Your task to perform on an android device: Search for Italian restaurants on Maps Image 0: 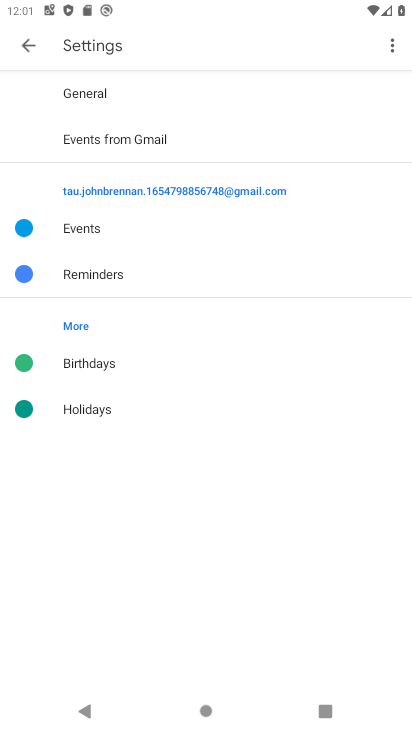
Step 0: press home button
Your task to perform on an android device: Search for Italian restaurants on Maps Image 1: 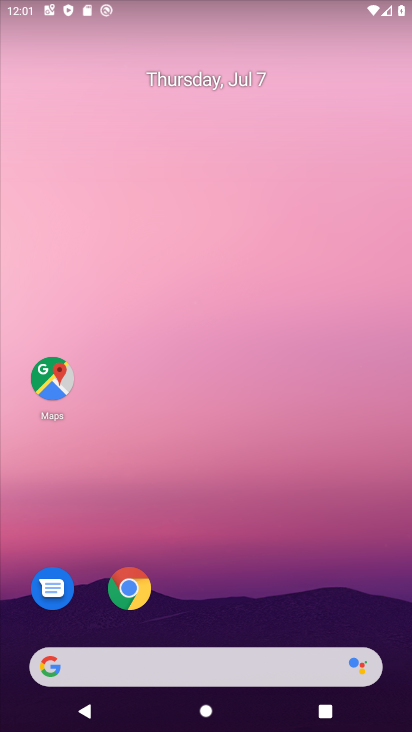
Step 1: drag from (227, 727) to (205, 80)
Your task to perform on an android device: Search for Italian restaurants on Maps Image 2: 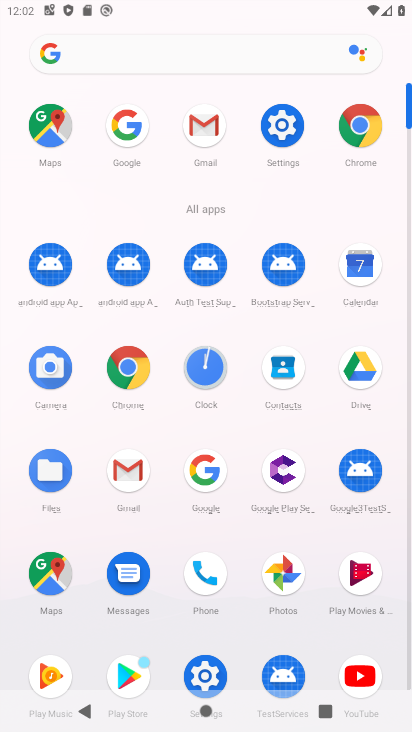
Step 2: click (51, 574)
Your task to perform on an android device: Search for Italian restaurants on Maps Image 3: 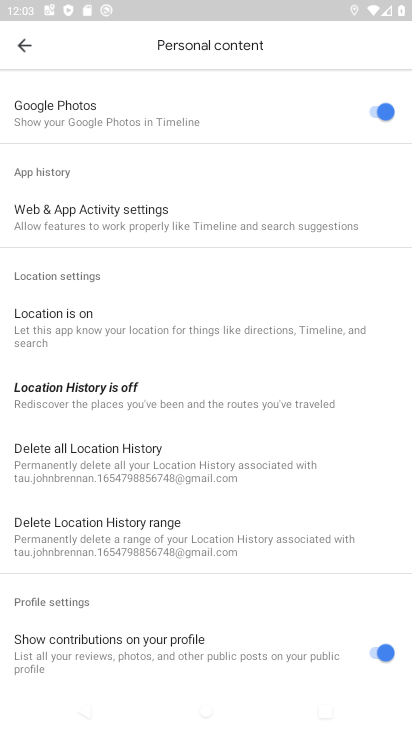
Step 3: click (29, 43)
Your task to perform on an android device: Search for Italian restaurants on Maps Image 4: 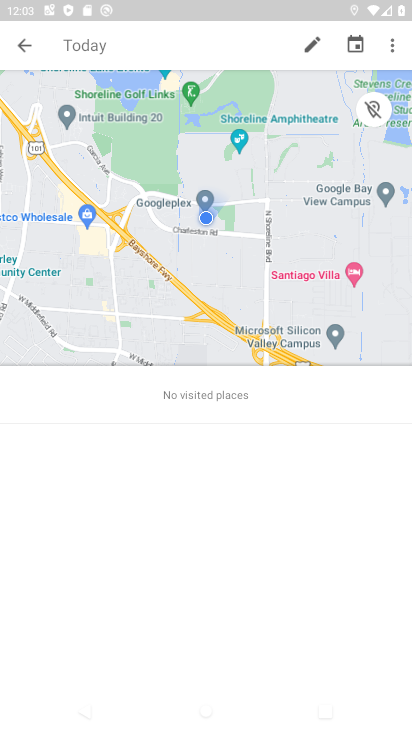
Step 4: click (25, 42)
Your task to perform on an android device: Search for Italian restaurants on Maps Image 5: 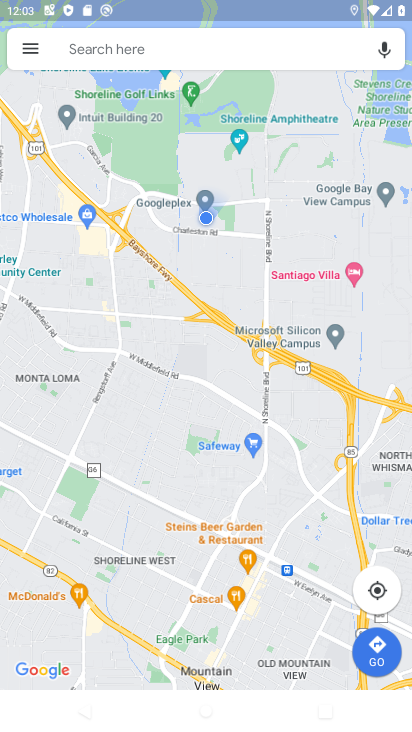
Step 5: click (210, 45)
Your task to perform on an android device: Search for Italian restaurants on Maps Image 6: 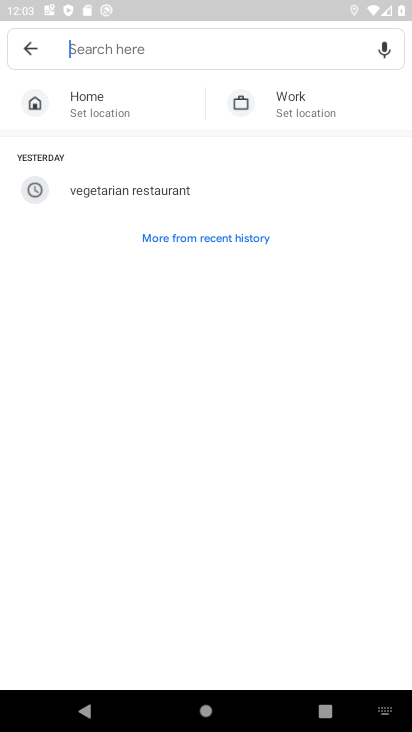
Step 6: type "Italian restaurants"
Your task to perform on an android device: Search for Italian restaurants on Maps Image 7: 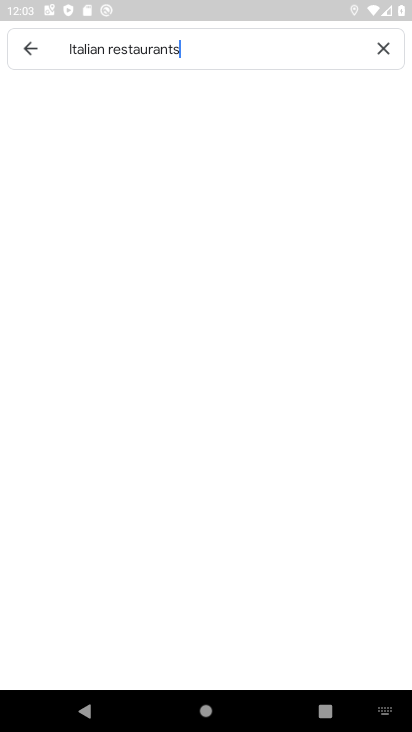
Step 7: type ""
Your task to perform on an android device: Search for Italian restaurants on Maps Image 8: 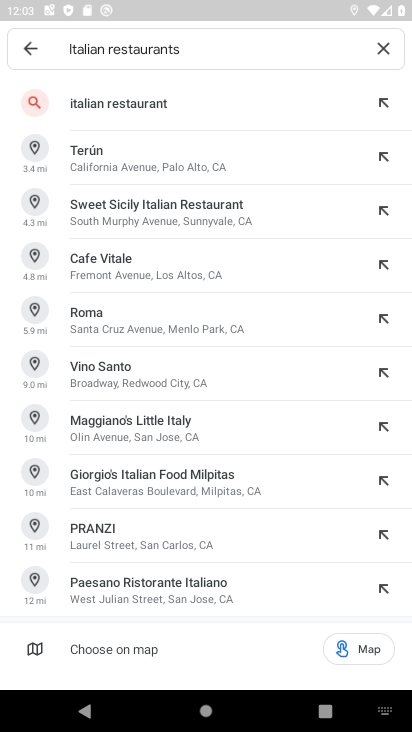
Step 8: click (122, 100)
Your task to perform on an android device: Search for Italian restaurants on Maps Image 9: 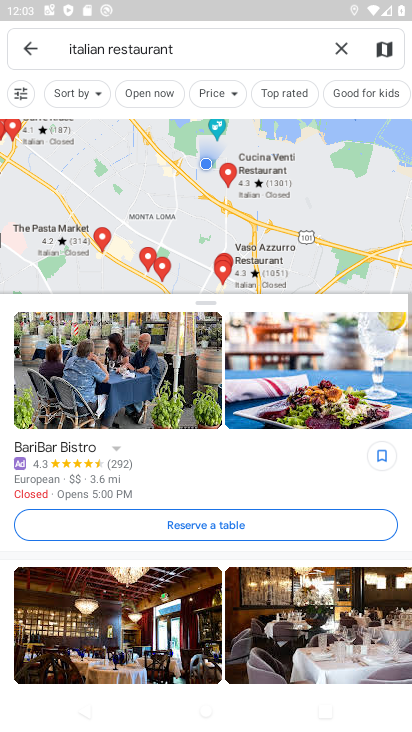
Step 9: task complete